Your task to perform on an android device: open chrome privacy settings Image 0: 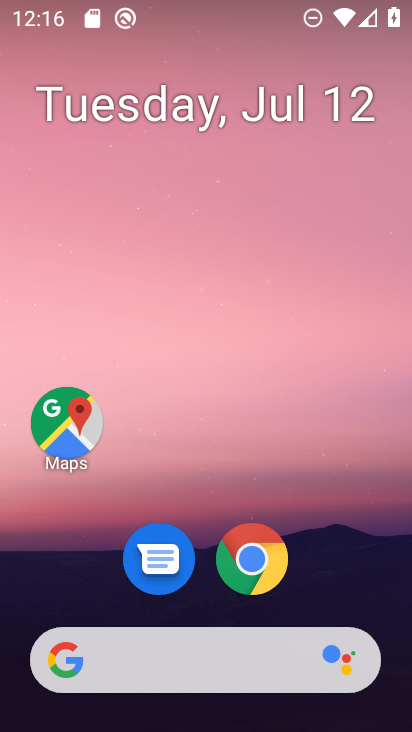
Step 0: click (247, 569)
Your task to perform on an android device: open chrome privacy settings Image 1: 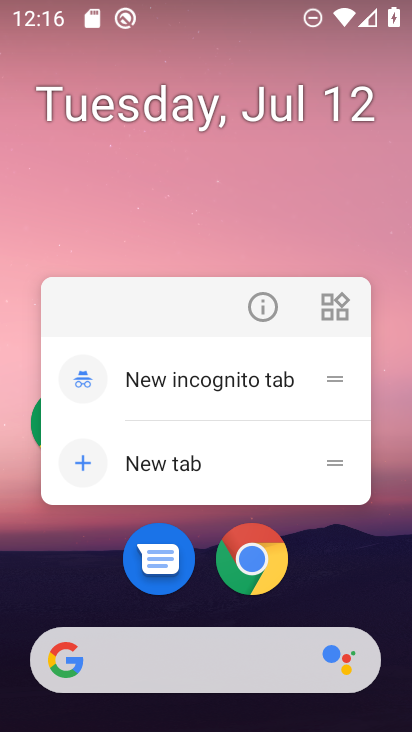
Step 1: click (247, 568)
Your task to perform on an android device: open chrome privacy settings Image 2: 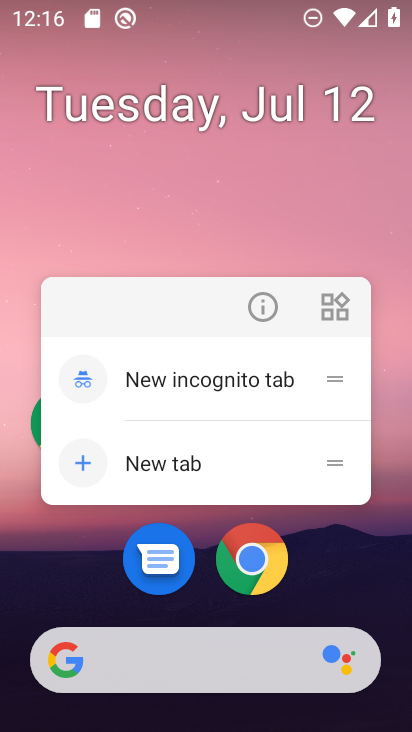
Step 2: click (242, 571)
Your task to perform on an android device: open chrome privacy settings Image 3: 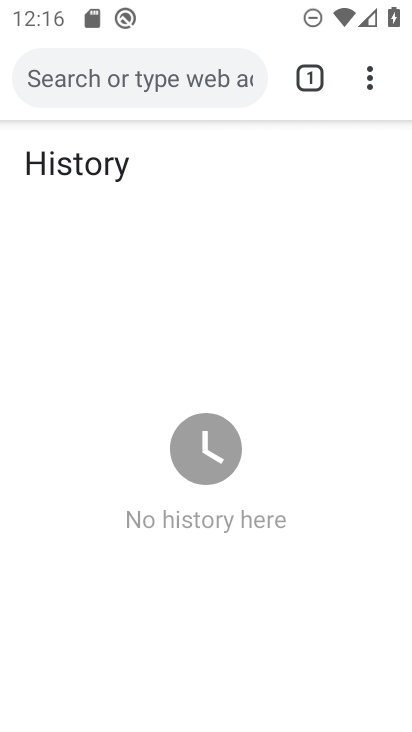
Step 3: drag from (377, 79) to (113, 618)
Your task to perform on an android device: open chrome privacy settings Image 4: 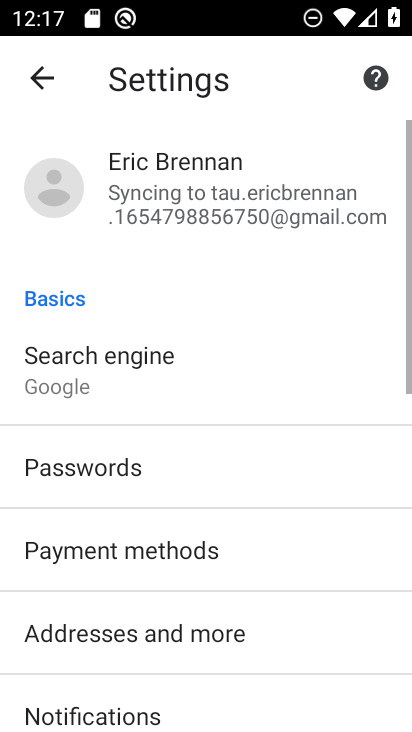
Step 4: drag from (120, 614) to (187, 164)
Your task to perform on an android device: open chrome privacy settings Image 5: 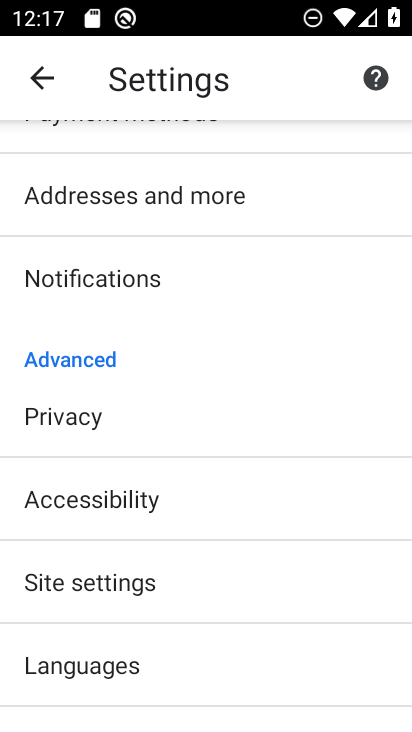
Step 5: click (62, 396)
Your task to perform on an android device: open chrome privacy settings Image 6: 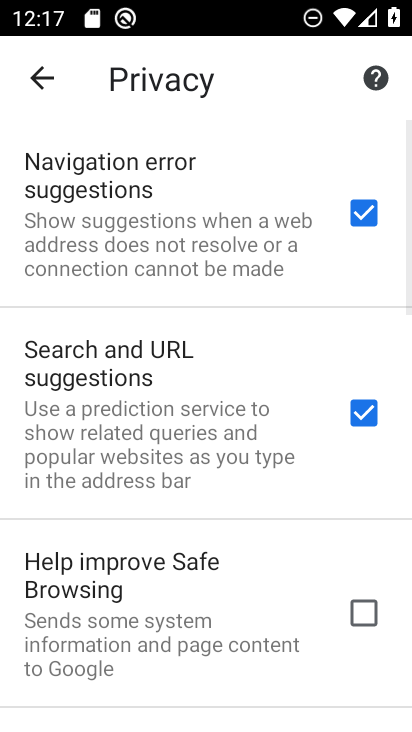
Step 6: task complete